Your task to perform on an android device: open chrome privacy settings Image 0: 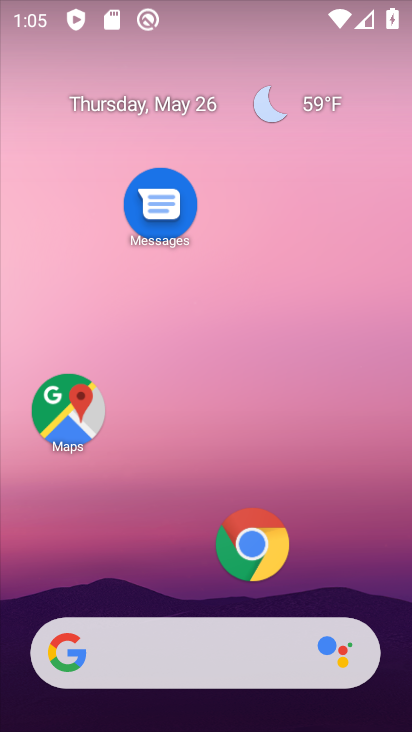
Step 0: drag from (145, 597) to (248, 140)
Your task to perform on an android device: open chrome privacy settings Image 1: 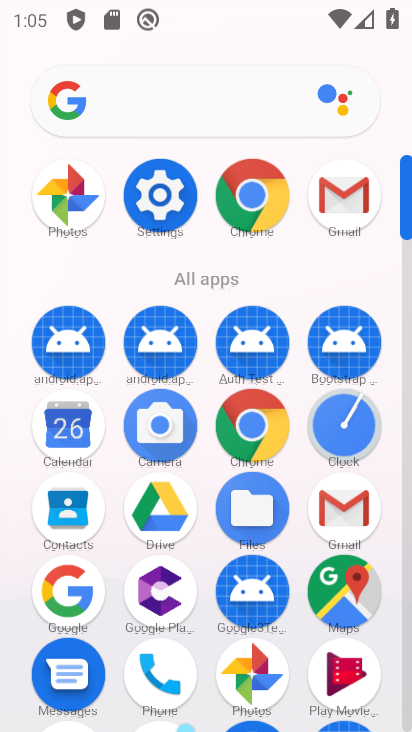
Step 1: click (139, 219)
Your task to perform on an android device: open chrome privacy settings Image 2: 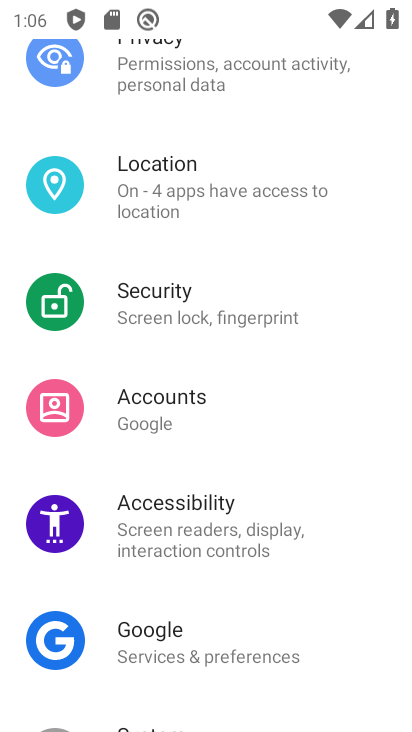
Step 2: click (112, 717)
Your task to perform on an android device: open chrome privacy settings Image 3: 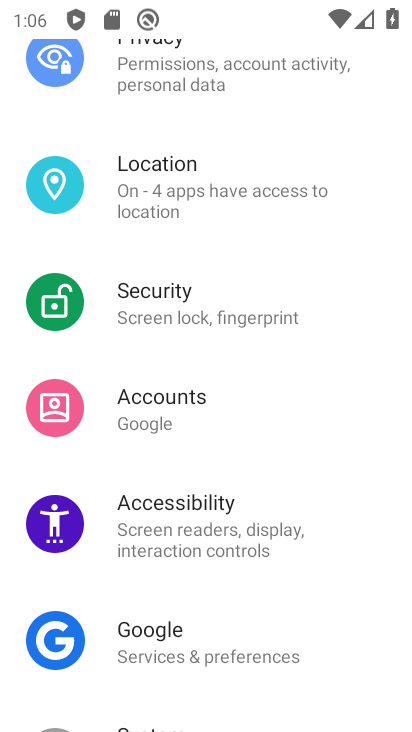
Step 3: drag from (112, 717) to (158, 355)
Your task to perform on an android device: open chrome privacy settings Image 4: 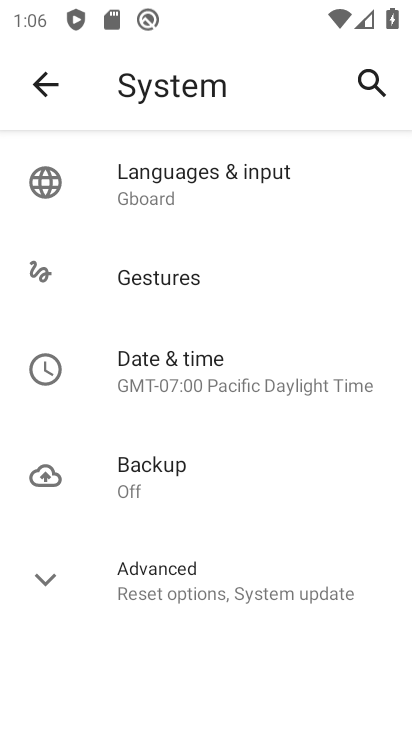
Step 4: click (42, 82)
Your task to perform on an android device: open chrome privacy settings Image 5: 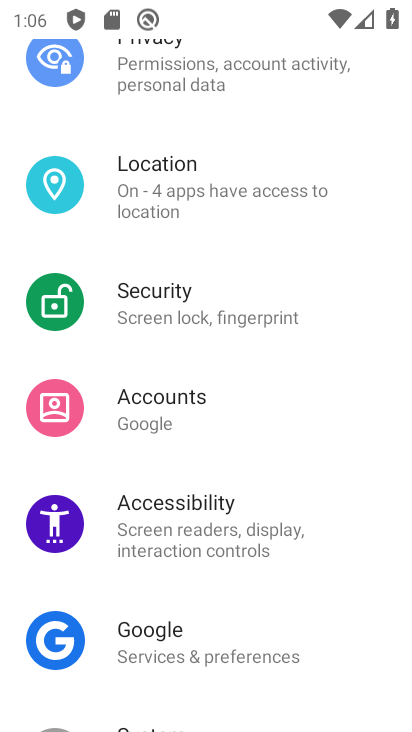
Step 5: drag from (132, 593) to (194, 343)
Your task to perform on an android device: open chrome privacy settings Image 6: 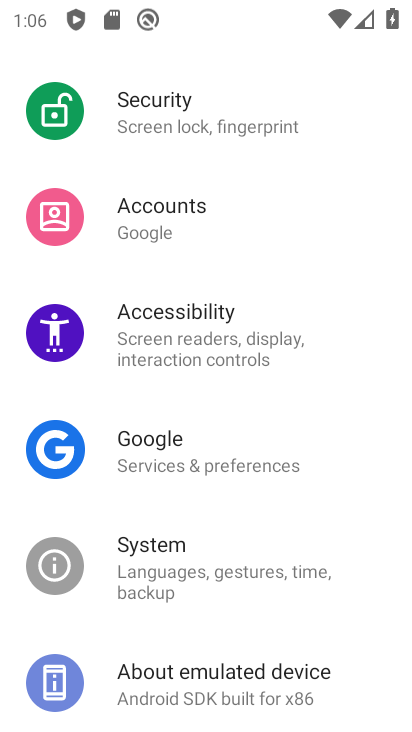
Step 6: click (100, 685)
Your task to perform on an android device: open chrome privacy settings Image 7: 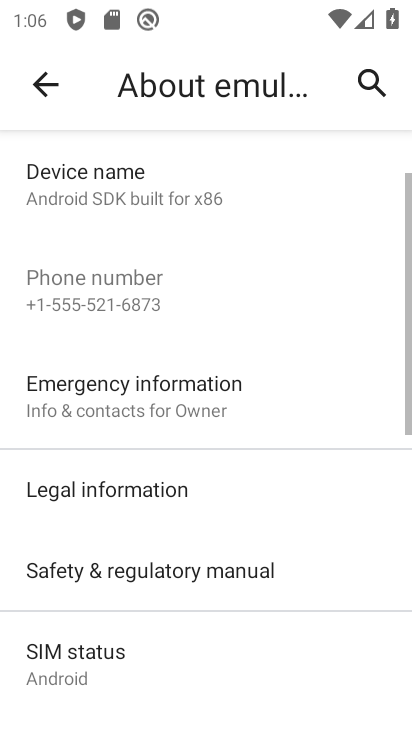
Step 7: task complete